Your task to perform on an android device: Go to Android settings Image 0: 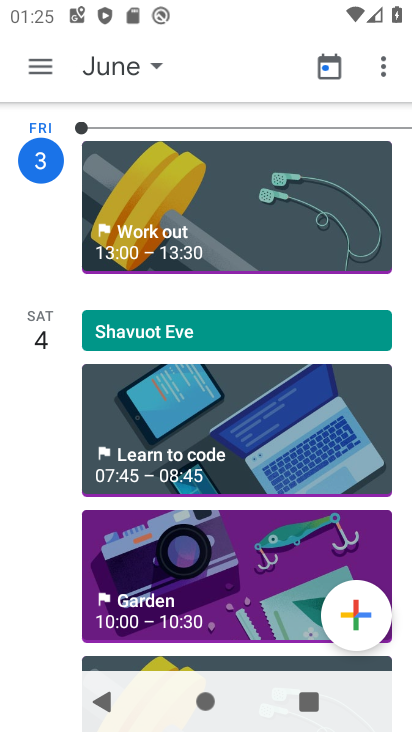
Step 0: press home button
Your task to perform on an android device: Go to Android settings Image 1: 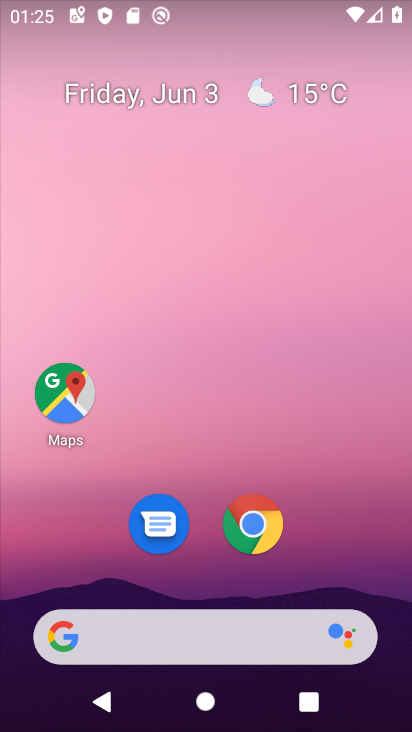
Step 1: drag from (324, 551) to (311, 9)
Your task to perform on an android device: Go to Android settings Image 2: 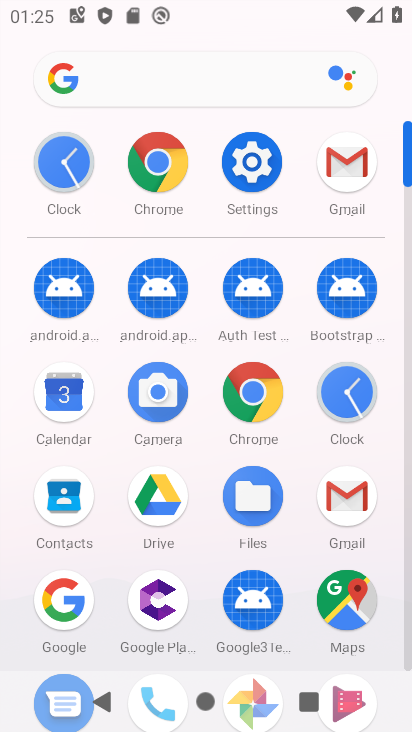
Step 2: drag from (205, 527) to (193, 246)
Your task to perform on an android device: Go to Android settings Image 3: 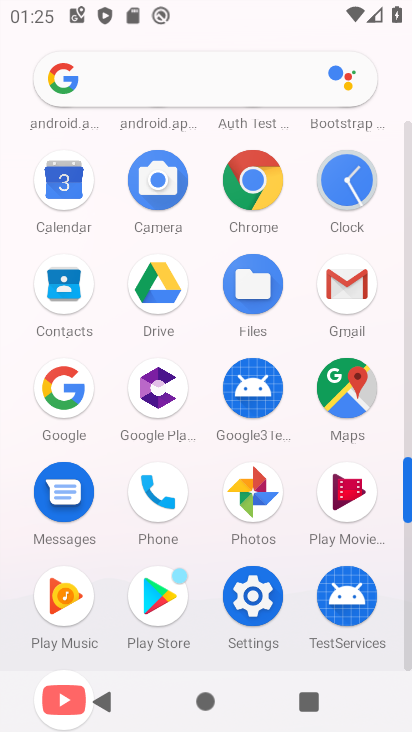
Step 3: click (250, 587)
Your task to perform on an android device: Go to Android settings Image 4: 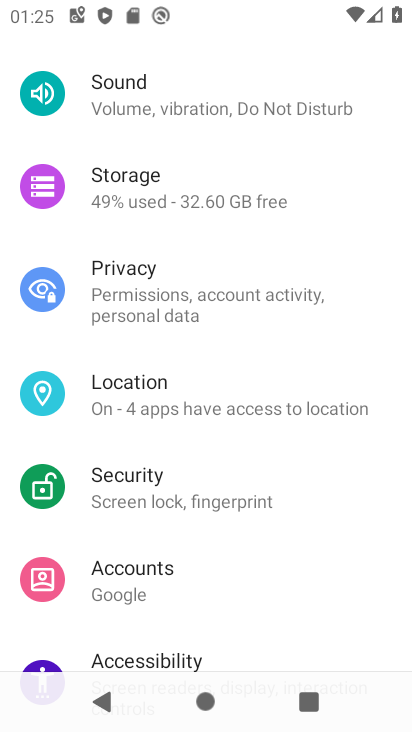
Step 4: drag from (259, 508) to (293, 9)
Your task to perform on an android device: Go to Android settings Image 5: 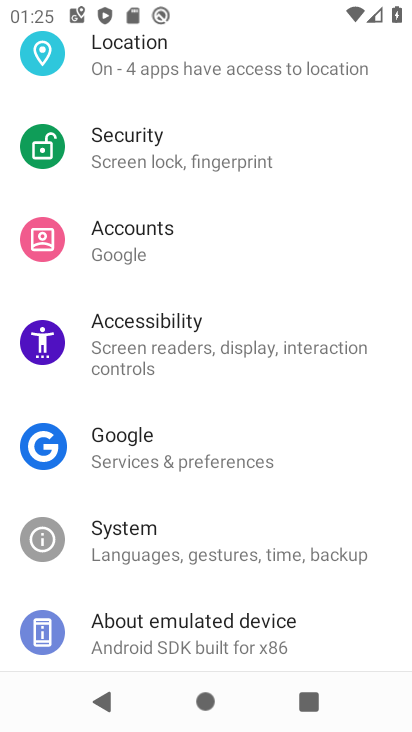
Step 5: click (266, 628)
Your task to perform on an android device: Go to Android settings Image 6: 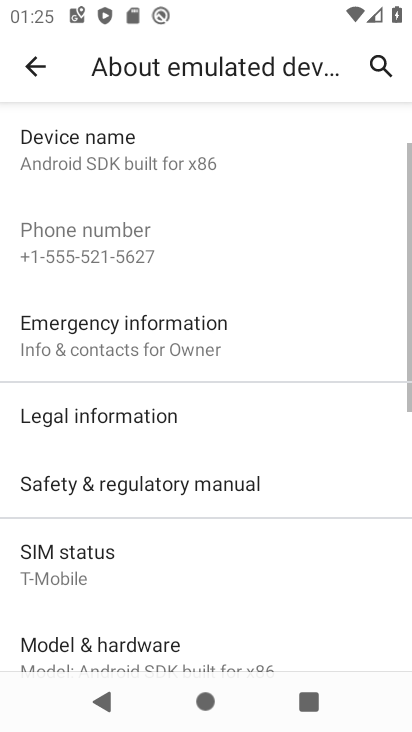
Step 6: task complete